Your task to perform on an android device: Open display settings Image 0: 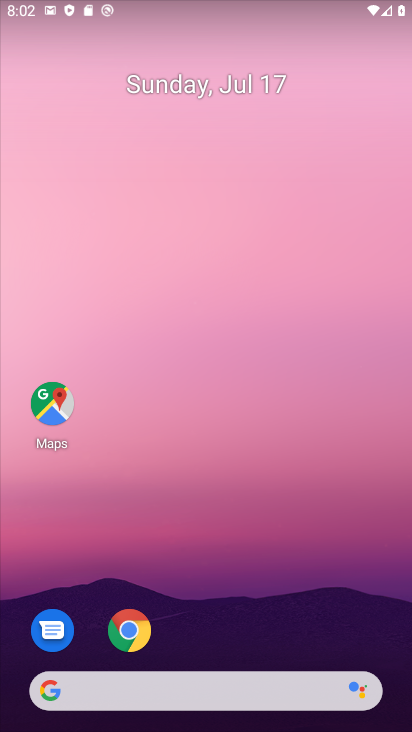
Step 0: drag from (231, 659) to (227, 91)
Your task to perform on an android device: Open display settings Image 1: 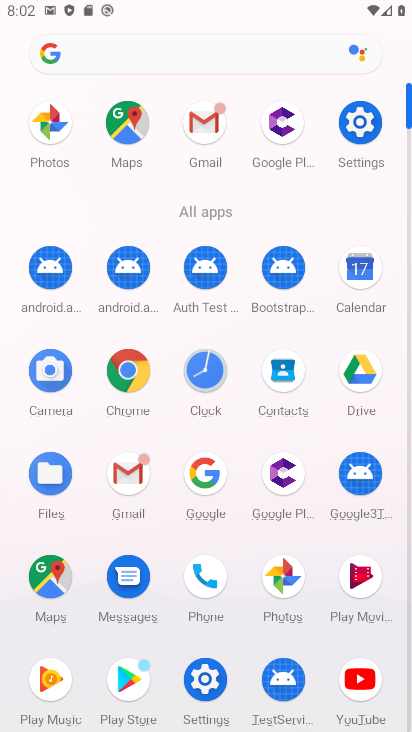
Step 1: click (213, 678)
Your task to perform on an android device: Open display settings Image 2: 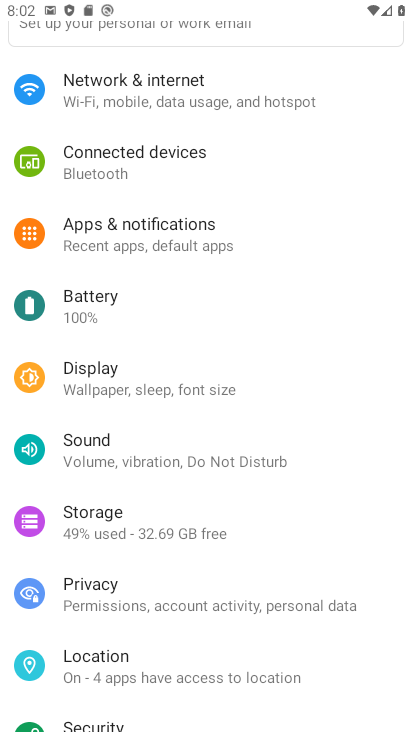
Step 2: click (108, 378)
Your task to perform on an android device: Open display settings Image 3: 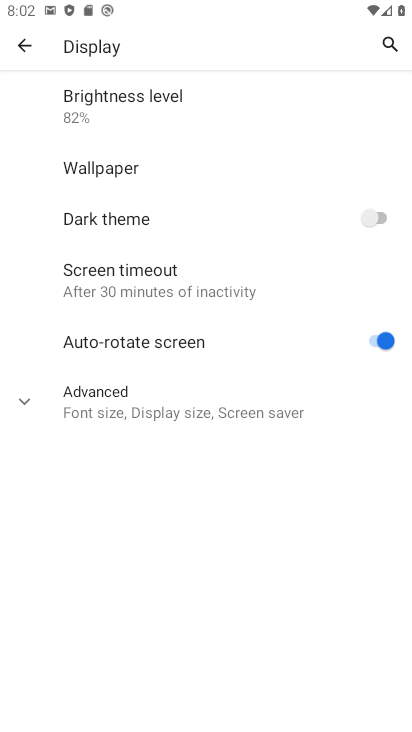
Step 3: task complete